Your task to perform on an android device: delete the emails in spam in the gmail app Image 0: 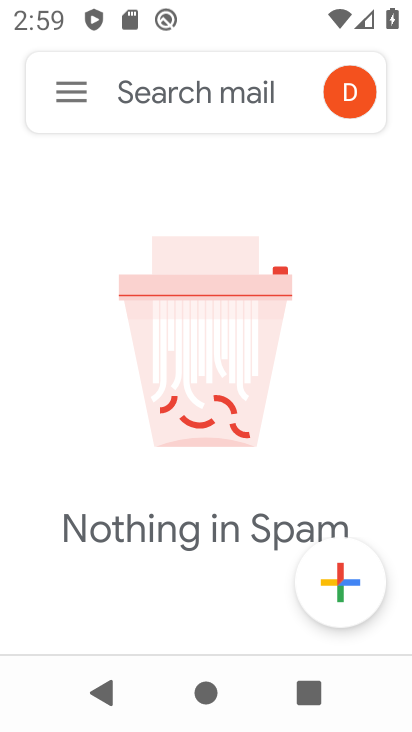
Step 0: task complete